Your task to perform on an android device: check google app version Image 0: 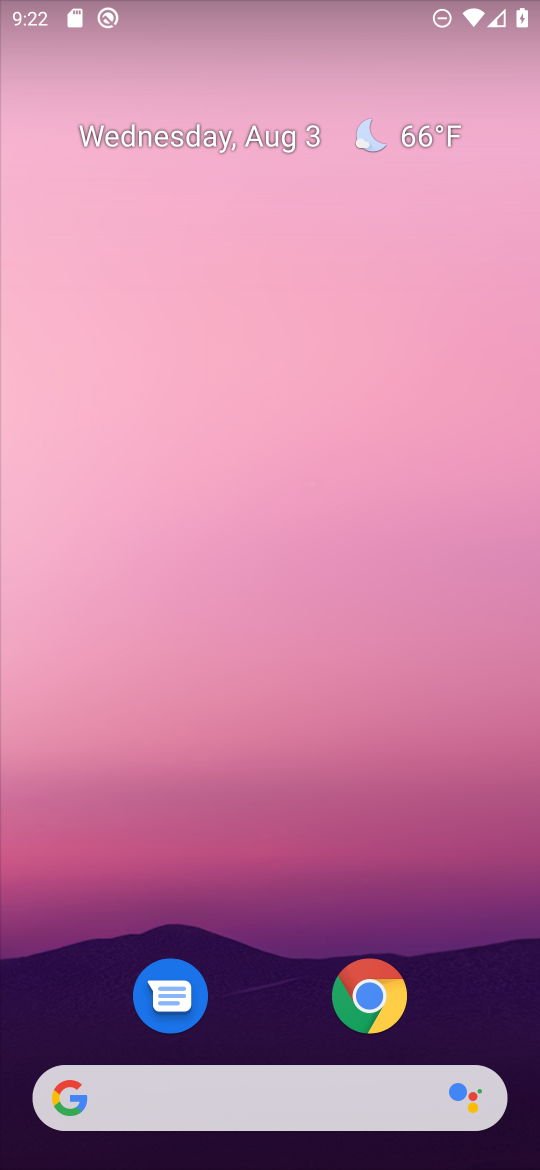
Step 0: drag from (282, 926) to (302, 72)
Your task to perform on an android device: check google app version Image 1: 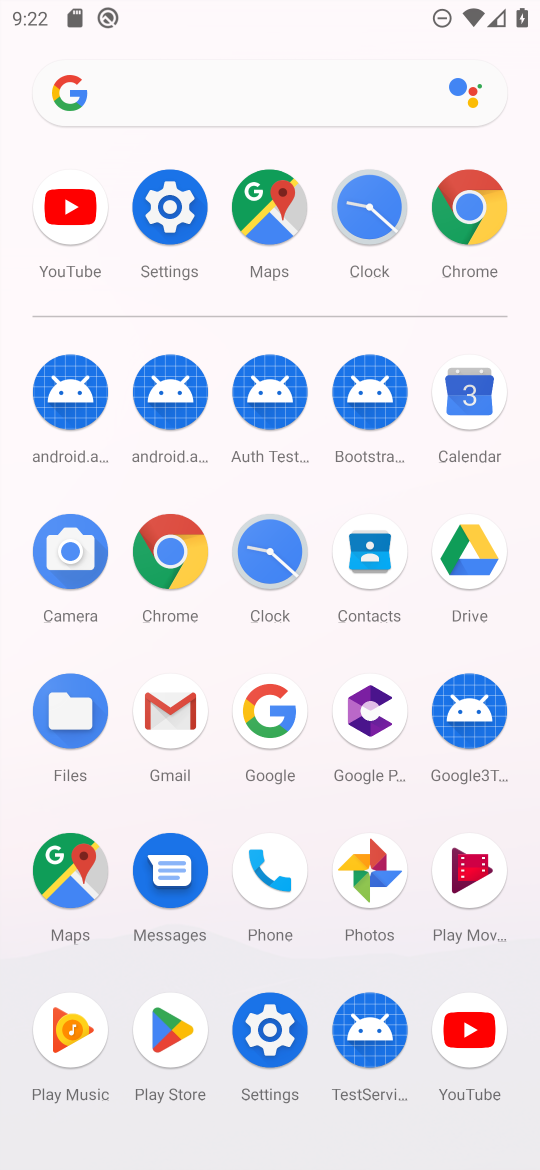
Step 1: click (271, 704)
Your task to perform on an android device: check google app version Image 2: 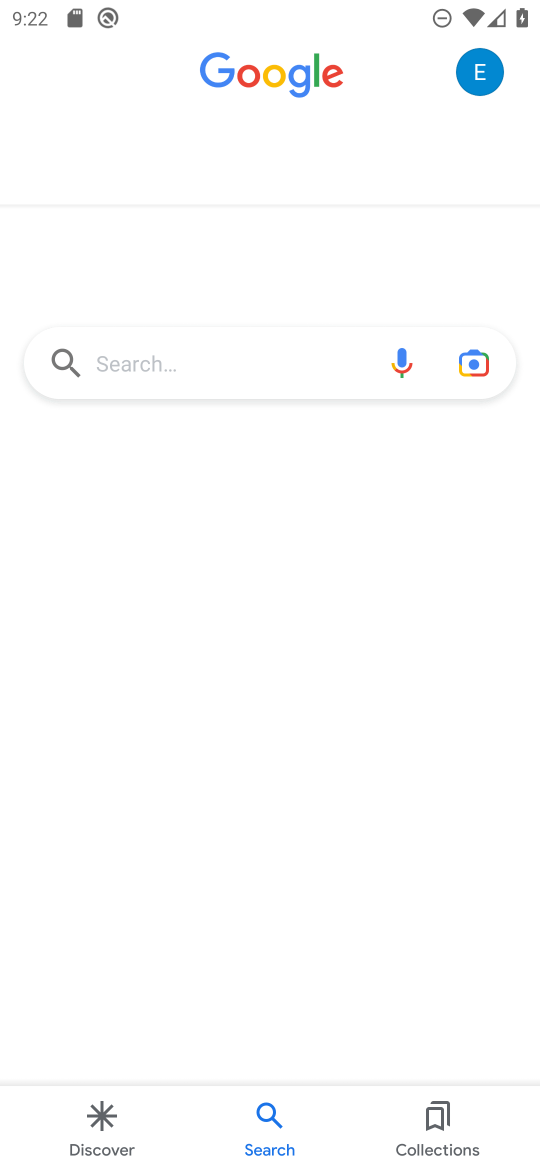
Step 2: click (481, 76)
Your task to perform on an android device: check google app version Image 3: 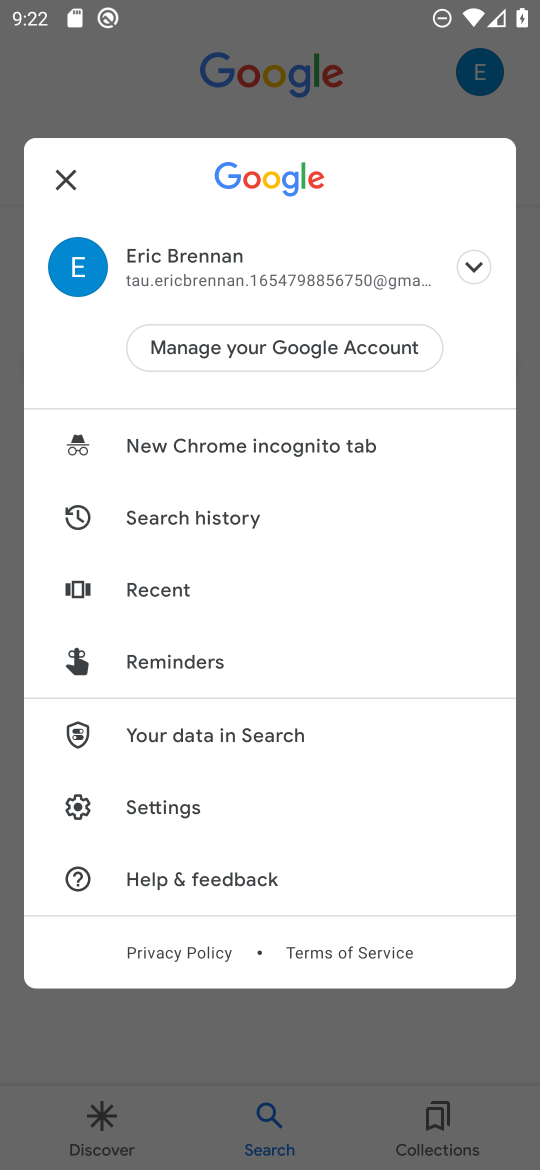
Step 3: click (157, 800)
Your task to perform on an android device: check google app version Image 4: 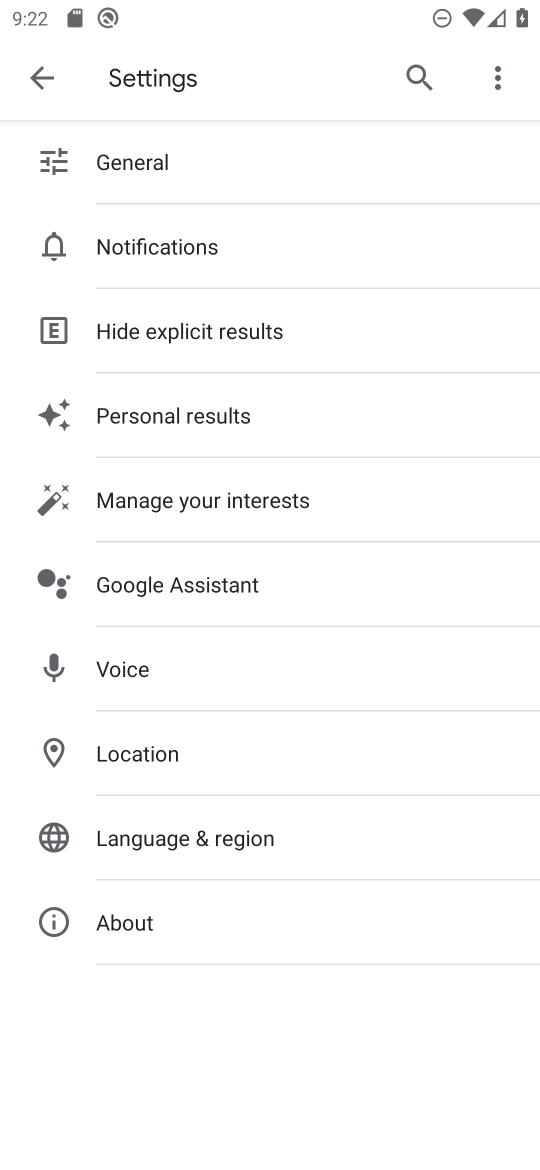
Step 4: click (132, 928)
Your task to perform on an android device: check google app version Image 5: 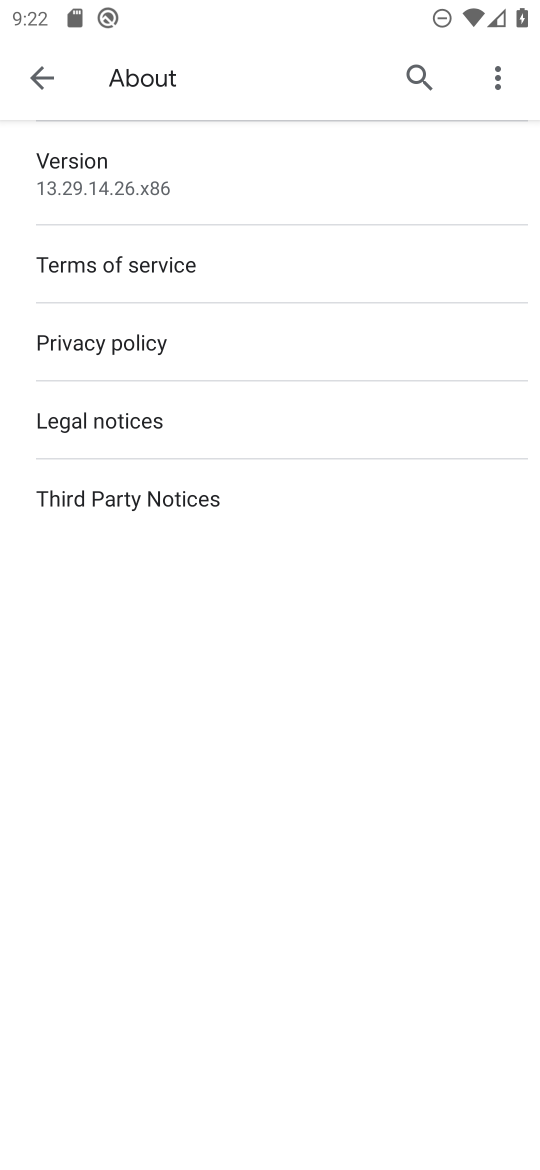
Step 5: task complete